Your task to perform on an android device: Open privacy settings Image 0: 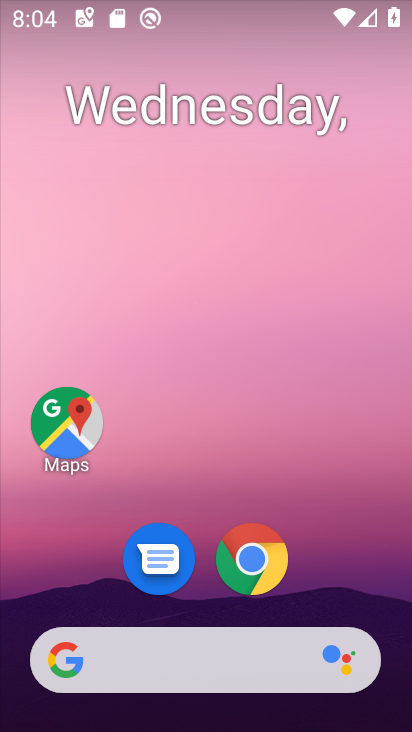
Step 0: drag from (348, 568) to (352, 169)
Your task to perform on an android device: Open privacy settings Image 1: 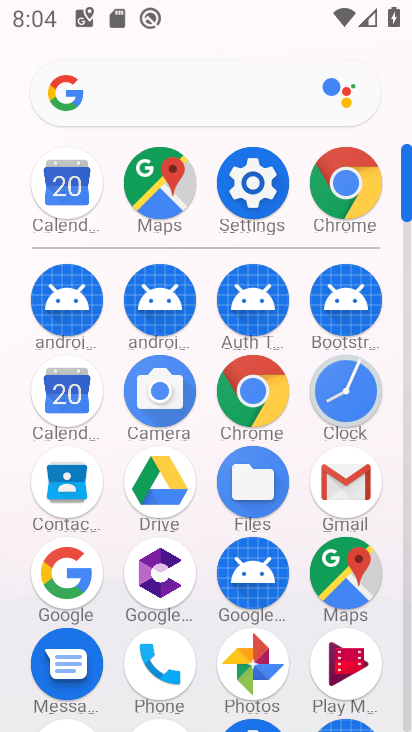
Step 1: click (249, 192)
Your task to perform on an android device: Open privacy settings Image 2: 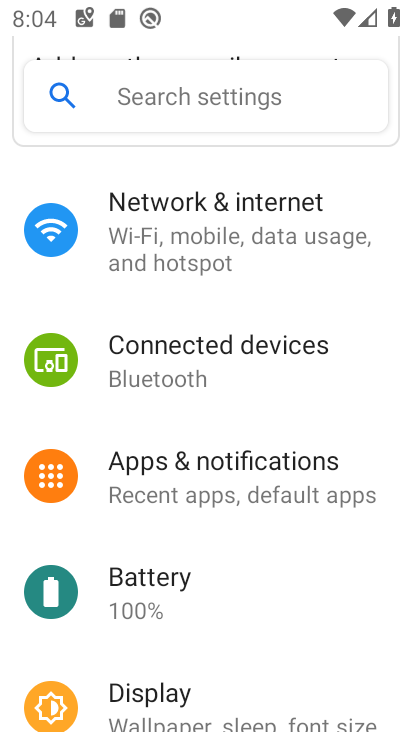
Step 2: drag from (266, 584) to (281, 265)
Your task to perform on an android device: Open privacy settings Image 3: 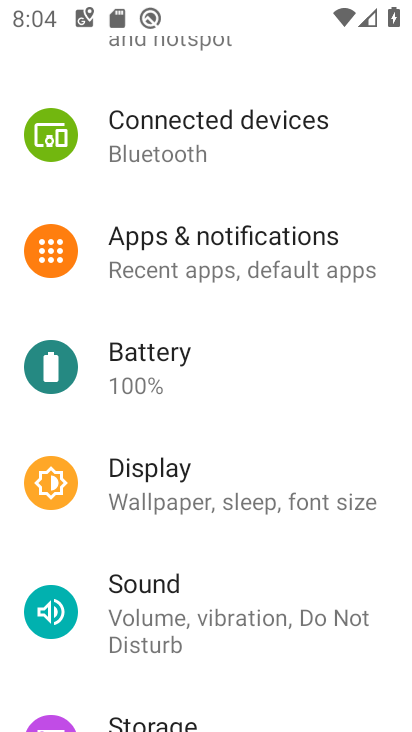
Step 3: drag from (310, 595) to (304, 298)
Your task to perform on an android device: Open privacy settings Image 4: 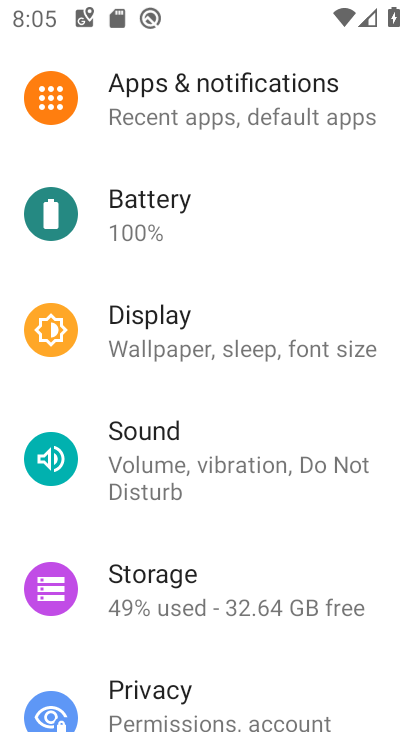
Step 4: drag from (282, 603) to (282, 298)
Your task to perform on an android device: Open privacy settings Image 5: 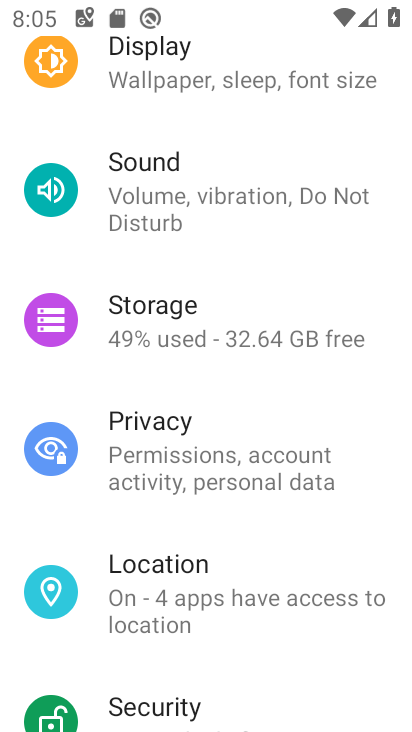
Step 5: click (204, 454)
Your task to perform on an android device: Open privacy settings Image 6: 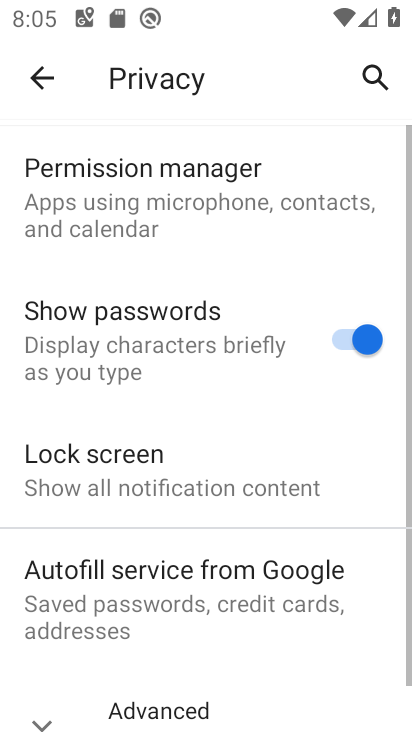
Step 6: task complete